Your task to perform on an android device: Google the capital of Bolivia Image 0: 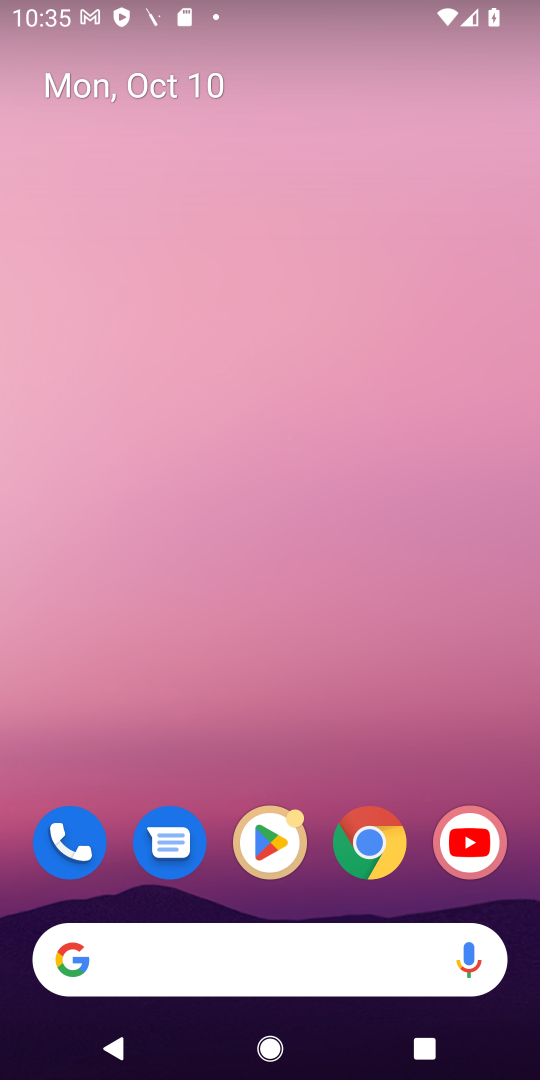
Step 0: click (214, 970)
Your task to perform on an android device: Google the capital of Bolivia Image 1: 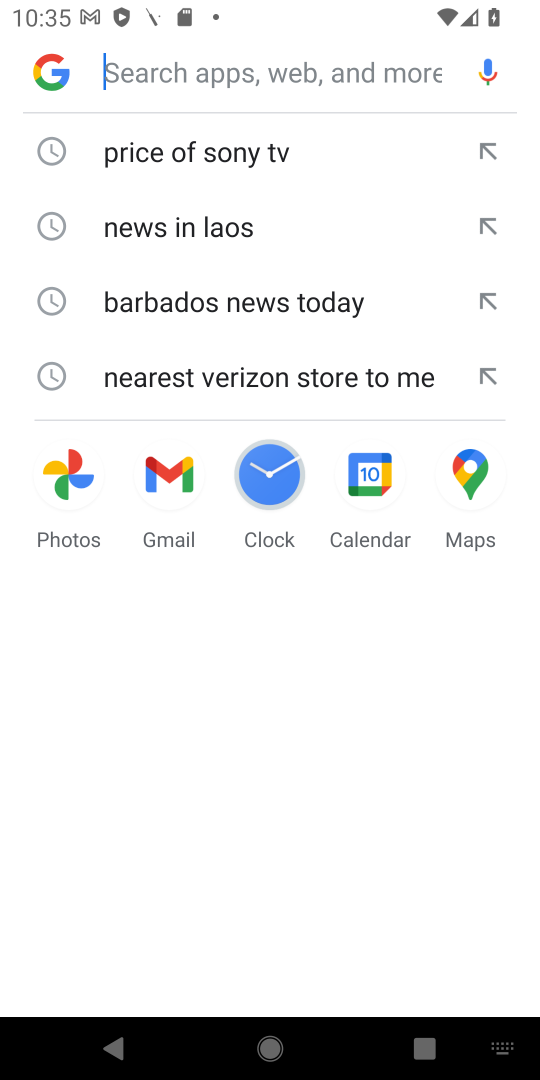
Step 1: click (208, 72)
Your task to perform on an android device: Google the capital of Bolivia Image 2: 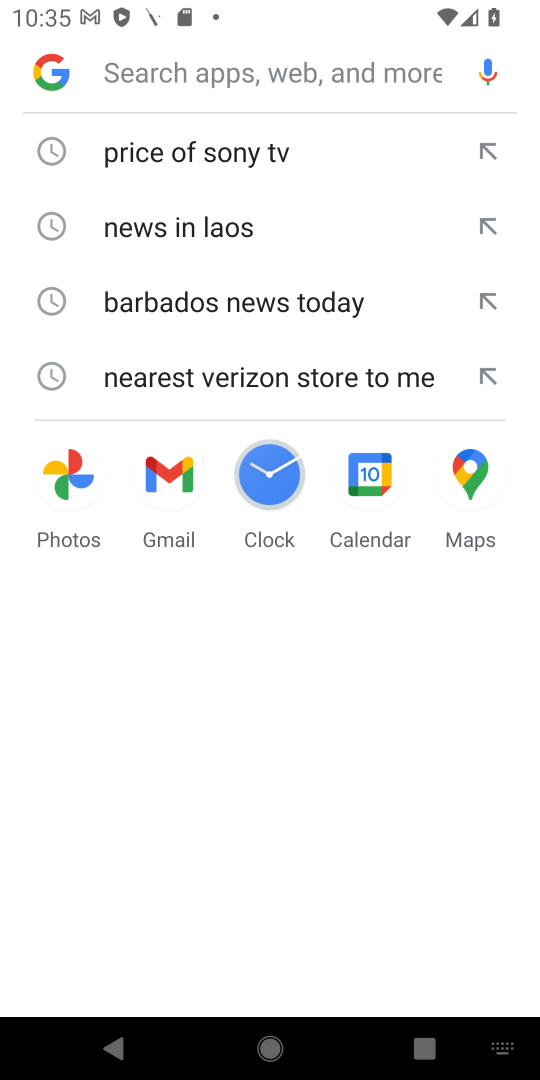
Step 2: type "capital of bolivia"
Your task to perform on an android device: Google the capital of Bolivia Image 3: 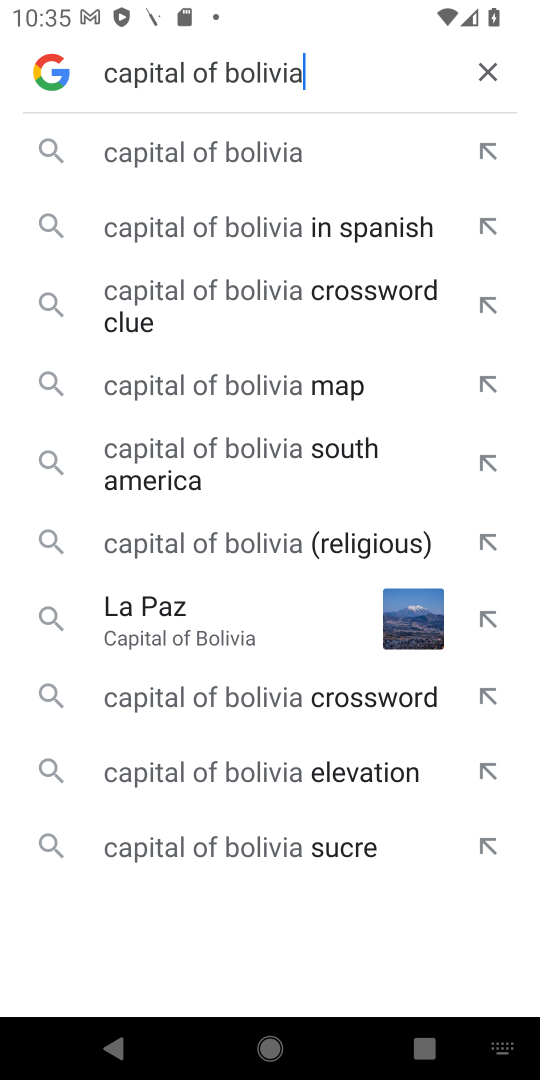
Step 3: click (173, 161)
Your task to perform on an android device: Google the capital of Bolivia Image 4: 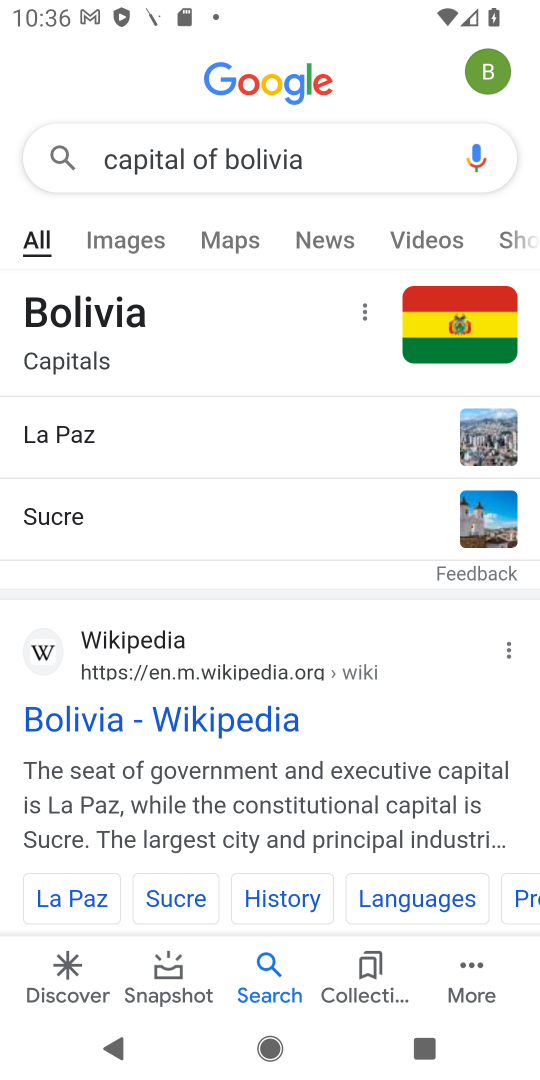
Step 4: task complete